Your task to perform on an android device: Do I have any events today? Image 0: 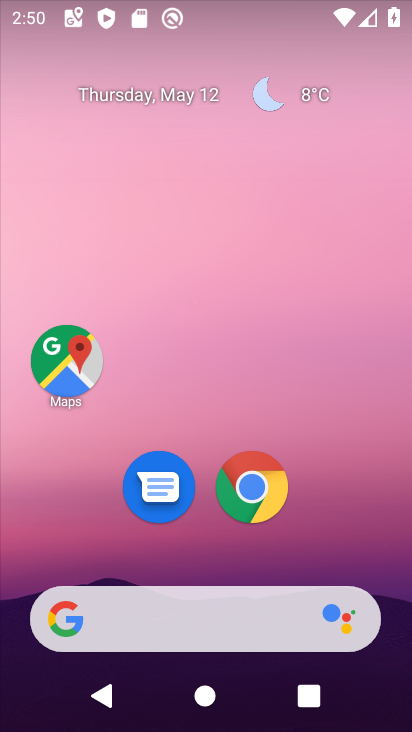
Step 0: drag from (334, 484) to (324, 86)
Your task to perform on an android device: Do I have any events today? Image 1: 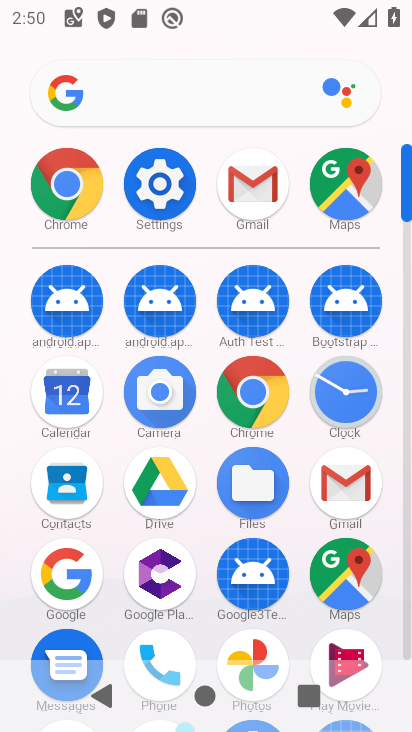
Step 1: drag from (286, 529) to (290, 254)
Your task to perform on an android device: Do I have any events today? Image 2: 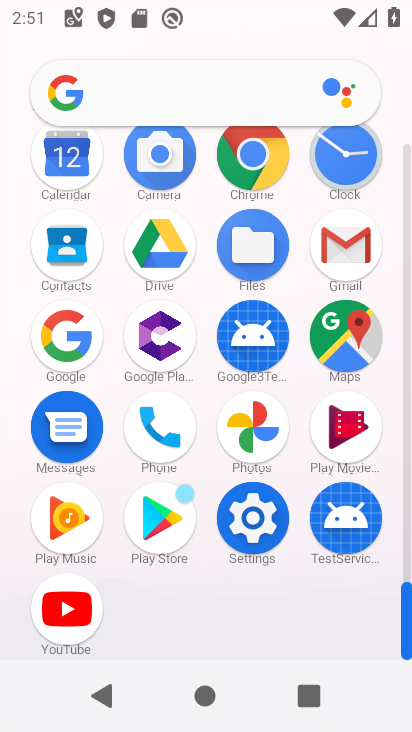
Step 2: click (66, 167)
Your task to perform on an android device: Do I have any events today? Image 3: 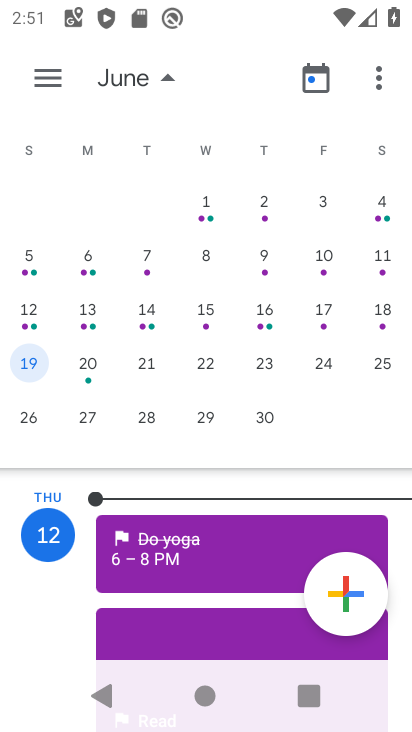
Step 3: drag from (36, 286) to (402, 281)
Your task to perform on an android device: Do I have any events today? Image 4: 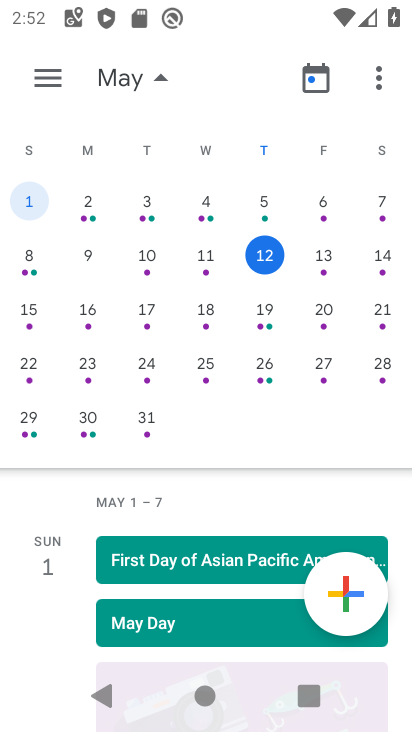
Step 4: click (278, 263)
Your task to perform on an android device: Do I have any events today? Image 5: 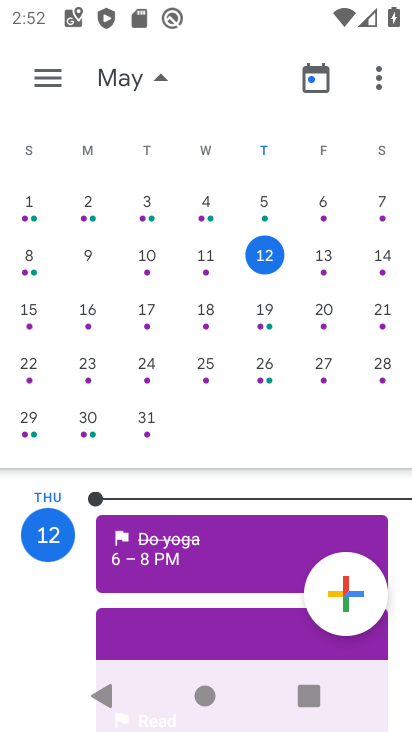
Step 5: task complete